Your task to perform on an android device: Open calendar and show me the second week of next month Image 0: 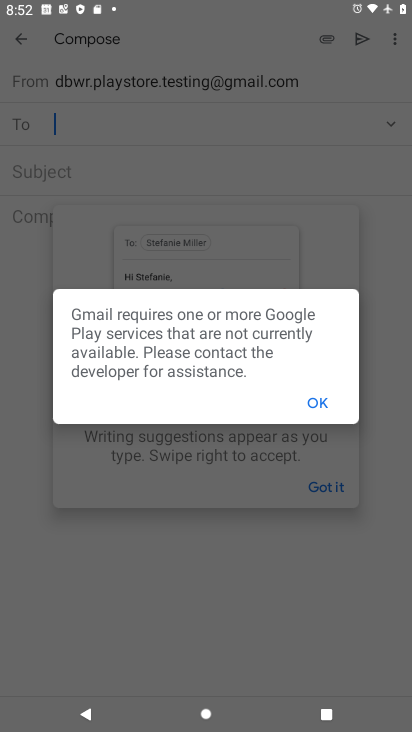
Step 0: press home button
Your task to perform on an android device: Open calendar and show me the second week of next month Image 1: 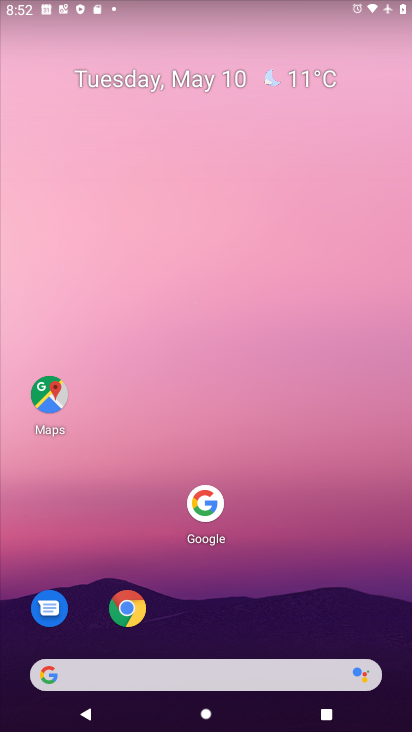
Step 1: drag from (231, 671) to (275, 282)
Your task to perform on an android device: Open calendar and show me the second week of next month Image 2: 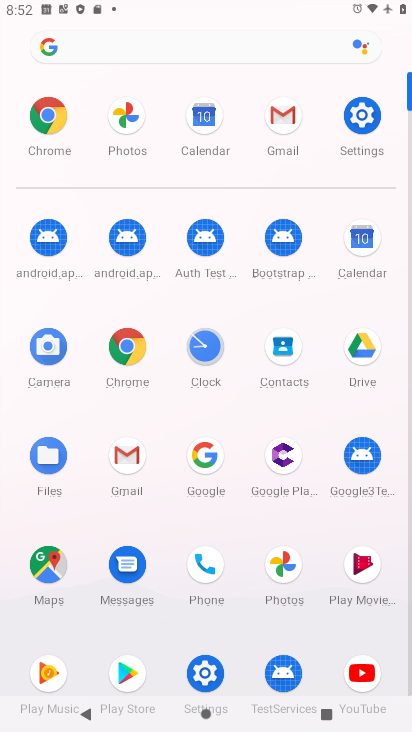
Step 2: click (355, 248)
Your task to perform on an android device: Open calendar and show me the second week of next month Image 3: 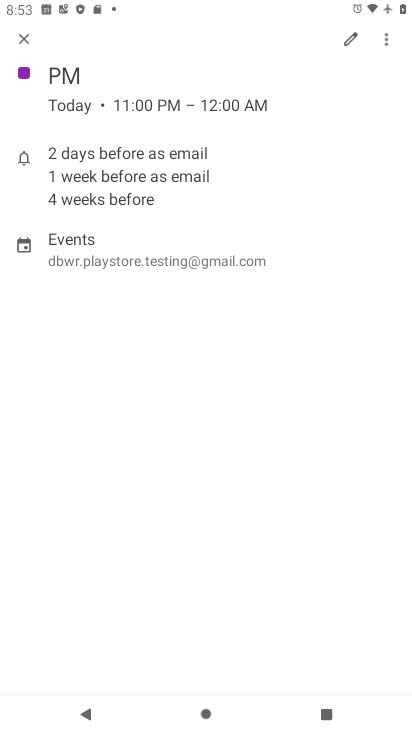
Step 3: click (25, 38)
Your task to perform on an android device: Open calendar and show me the second week of next month Image 4: 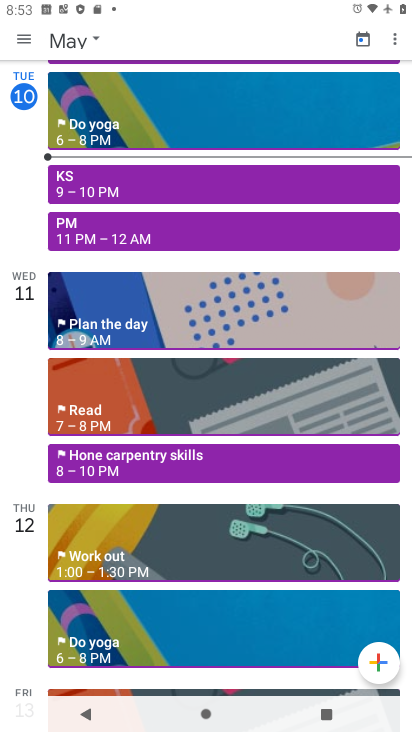
Step 4: click (79, 33)
Your task to perform on an android device: Open calendar and show me the second week of next month Image 5: 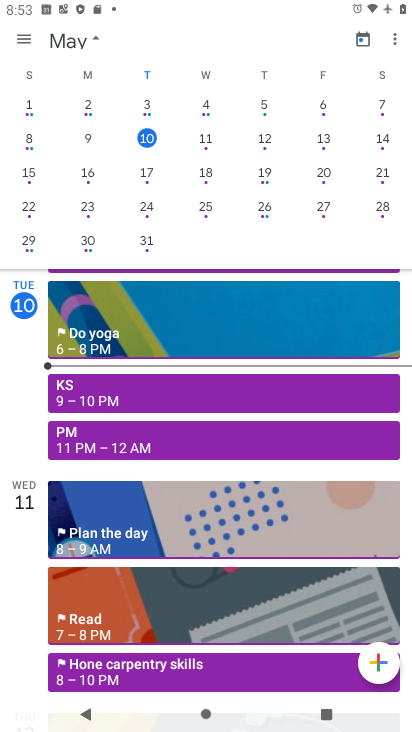
Step 5: drag from (357, 188) to (112, 127)
Your task to perform on an android device: Open calendar and show me the second week of next month Image 6: 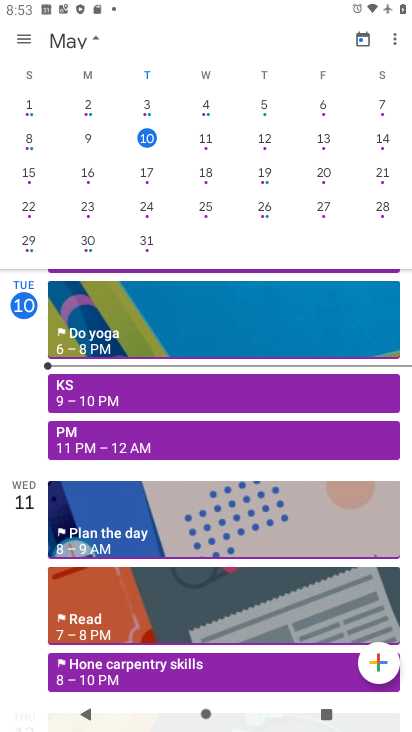
Step 6: drag from (332, 163) to (39, 99)
Your task to perform on an android device: Open calendar and show me the second week of next month Image 7: 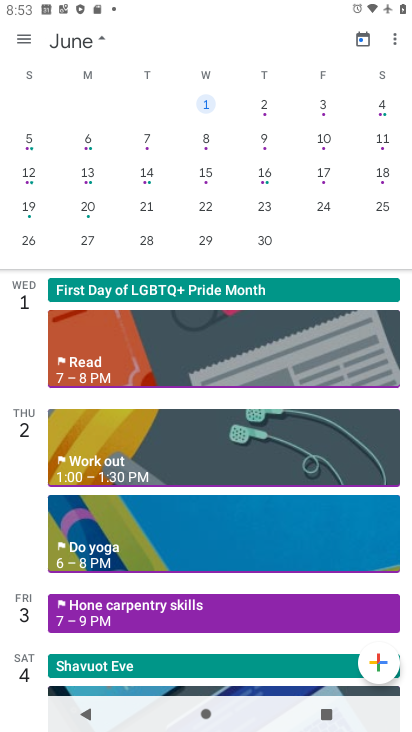
Step 7: click (37, 135)
Your task to perform on an android device: Open calendar and show me the second week of next month Image 8: 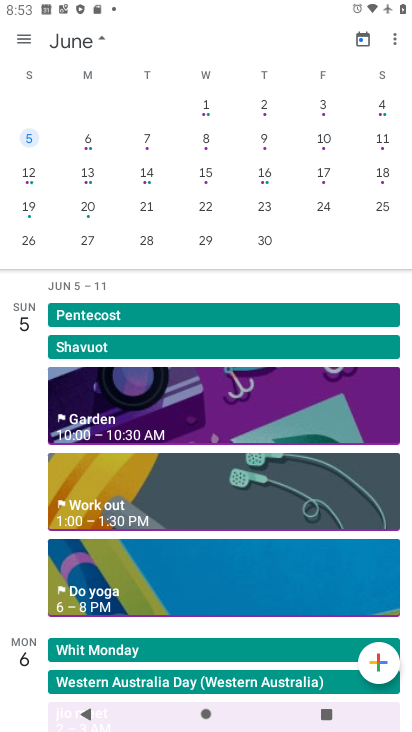
Step 8: click (23, 39)
Your task to perform on an android device: Open calendar and show me the second week of next month Image 9: 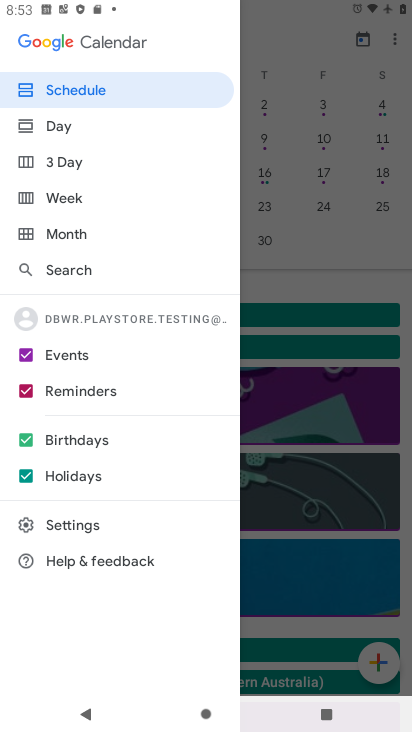
Step 9: click (70, 197)
Your task to perform on an android device: Open calendar and show me the second week of next month Image 10: 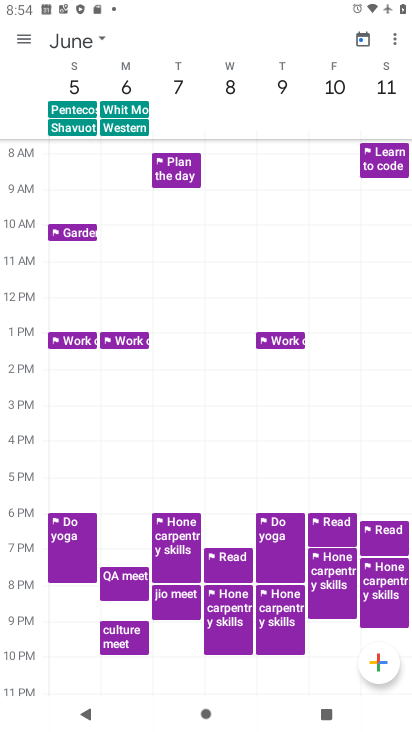
Step 10: task complete